Your task to perform on an android device: toggle wifi Image 0: 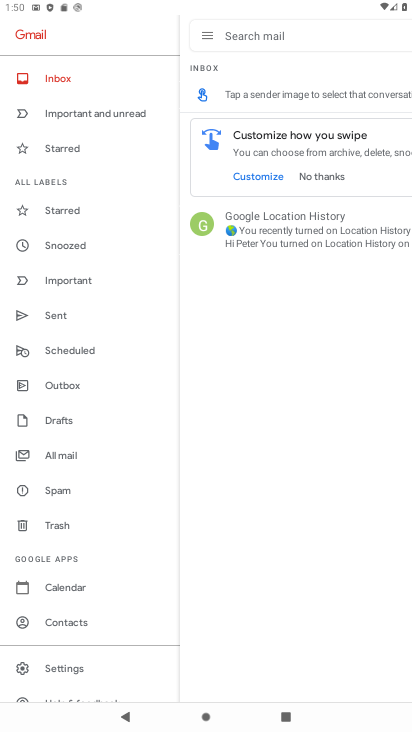
Step 0: press home button
Your task to perform on an android device: toggle wifi Image 1: 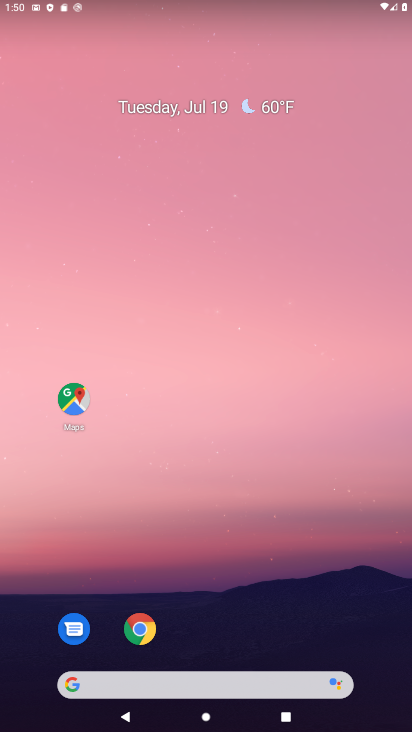
Step 1: drag from (242, 640) to (247, 191)
Your task to perform on an android device: toggle wifi Image 2: 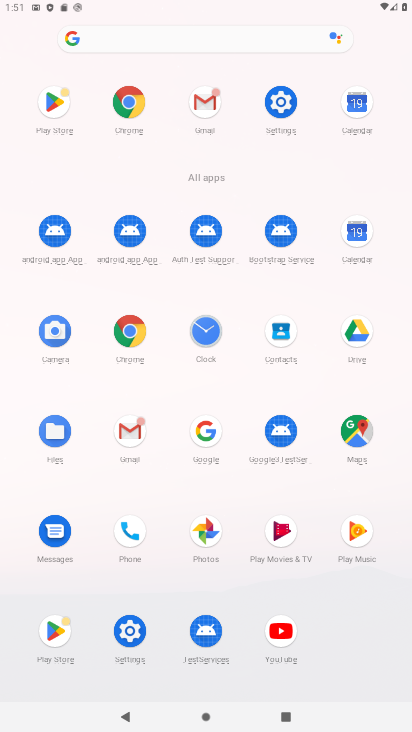
Step 2: click (131, 632)
Your task to perform on an android device: toggle wifi Image 3: 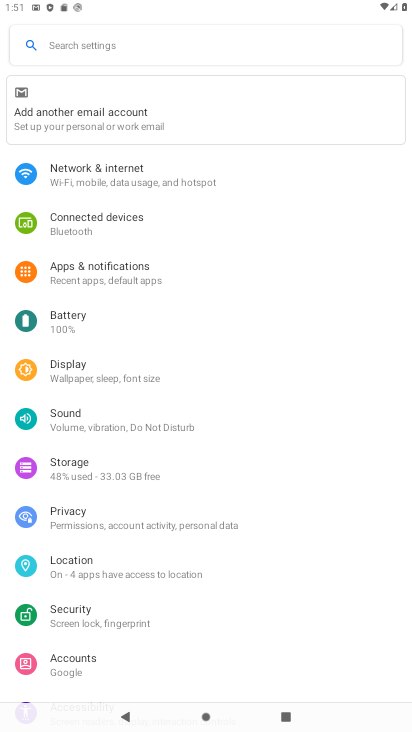
Step 3: click (86, 167)
Your task to perform on an android device: toggle wifi Image 4: 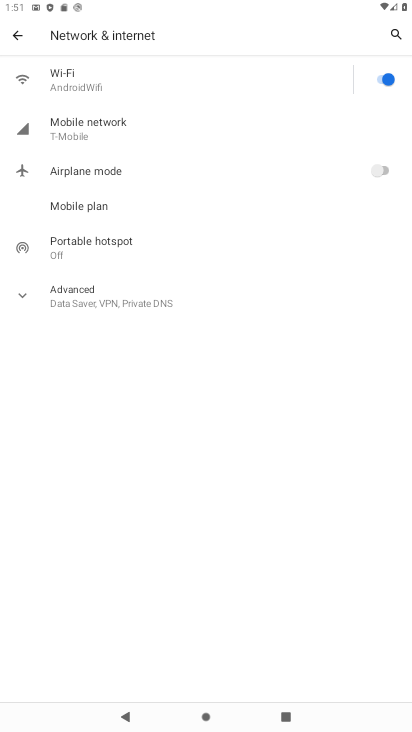
Step 4: click (379, 78)
Your task to perform on an android device: toggle wifi Image 5: 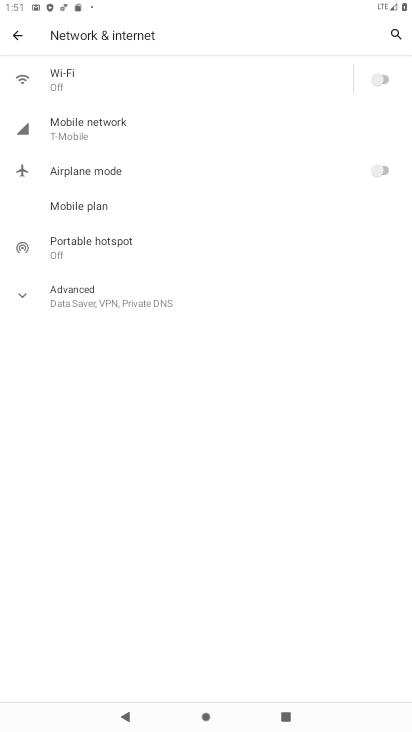
Step 5: task complete